Your task to perform on an android device: Go to sound settings Image 0: 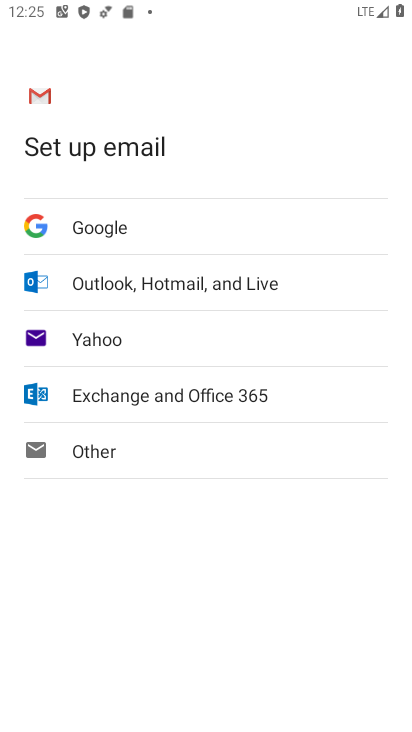
Step 0: press home button
Your task to perform on an android device: Go to sound settings Image 1: 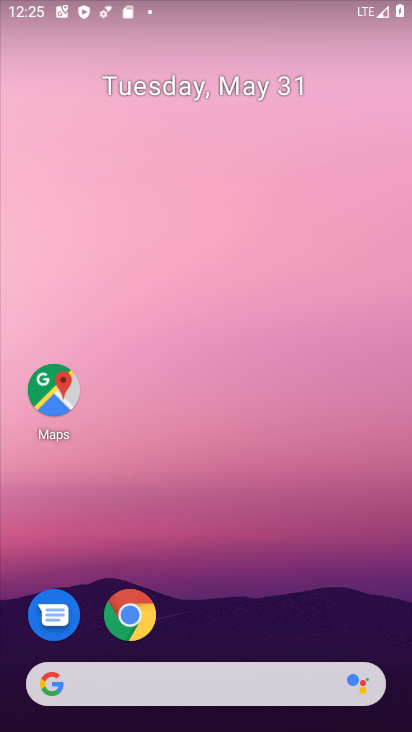
Step 1: drag from (219, 565) to (271, 30)
Your task to perform on an android device: Go to sound settings Image 2: 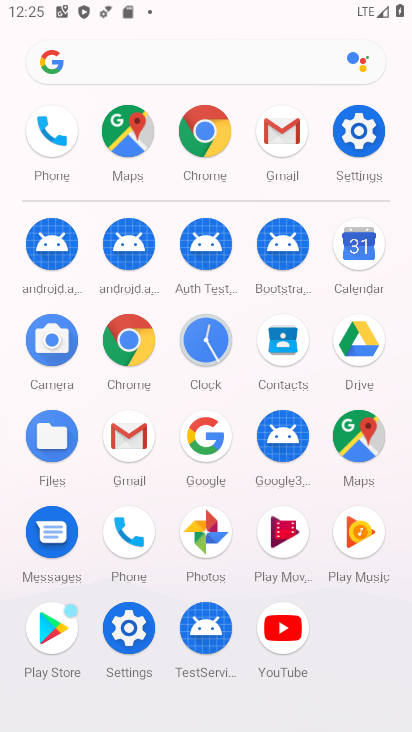
Step 2: click (356, 140)
Your task to perform on an android device: Go to sound settings Image 3: 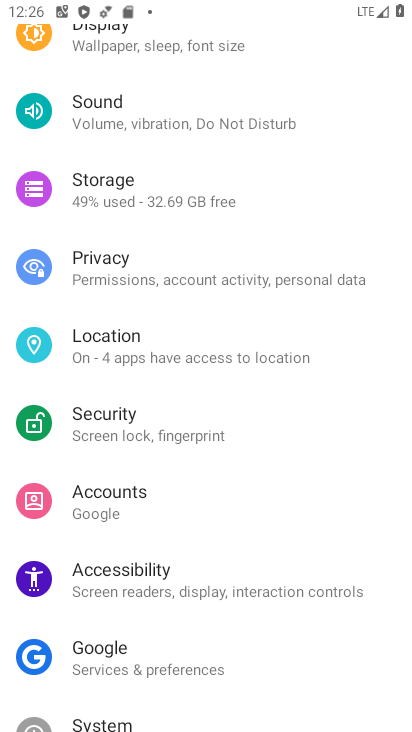
Step 3: click (148, 123)
Your task to perform on an android device: Go to sound settings Image 4: 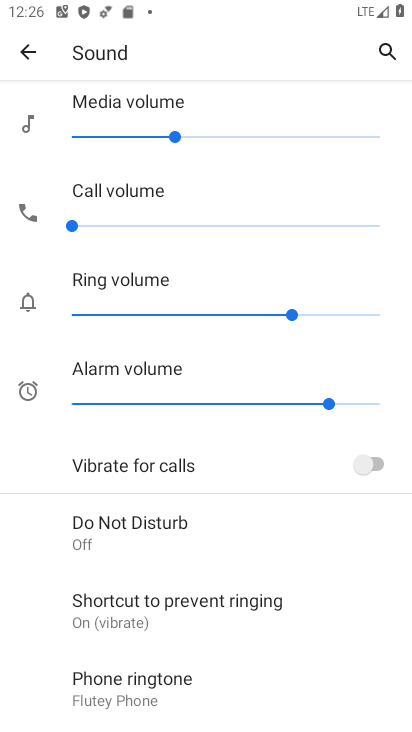
Step 4: task complete